Your task to perform on an android device: Open maps Image 0: 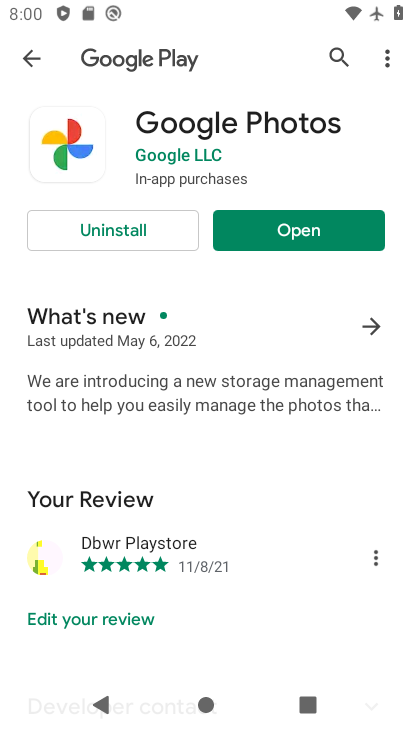
Step 0: press home button
Your task to perform on an android device: Open maps Image 1: 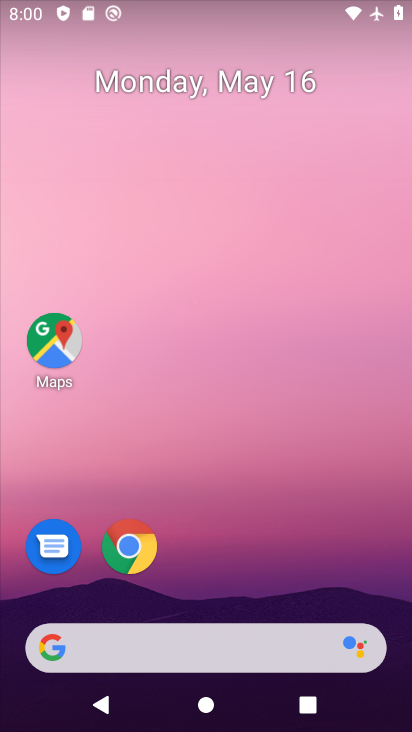
Step 1: click (69, 344)
Your task to perform on an android device: Open maps Image 2: 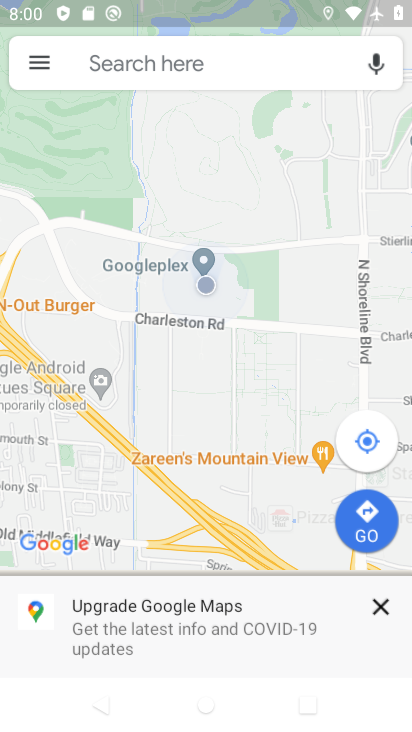
Step 2: task complete